Your task to perform on an android device: Toggle the flashlight Image 0: 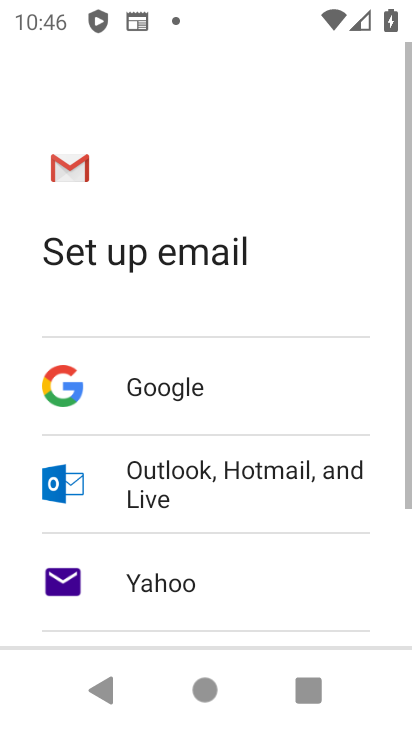
Step 0: press home button
Your task to perform on an android device: Toggle the flashlight Image 1: 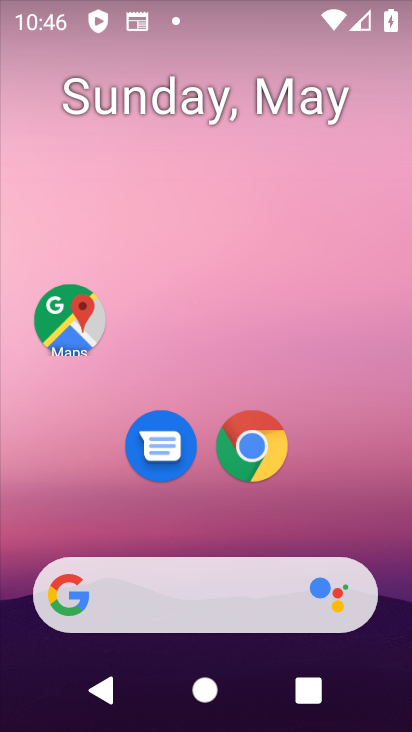
Step 1: task complete